Your task to perform on an android device: check android version Image 0: 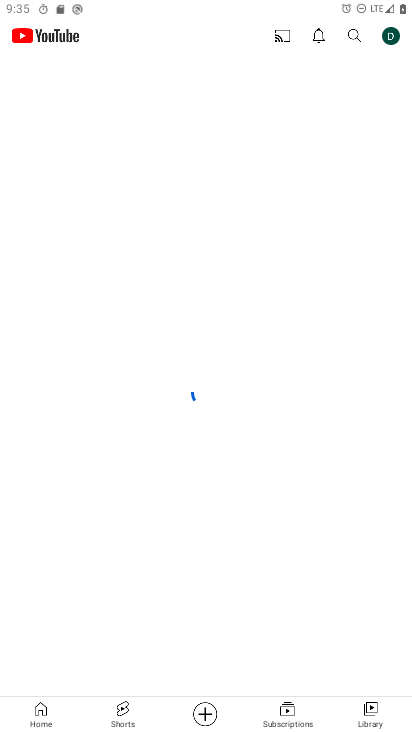
Step 0: click (284, 4)
Your task to perform on an android device: check android version Image 1: 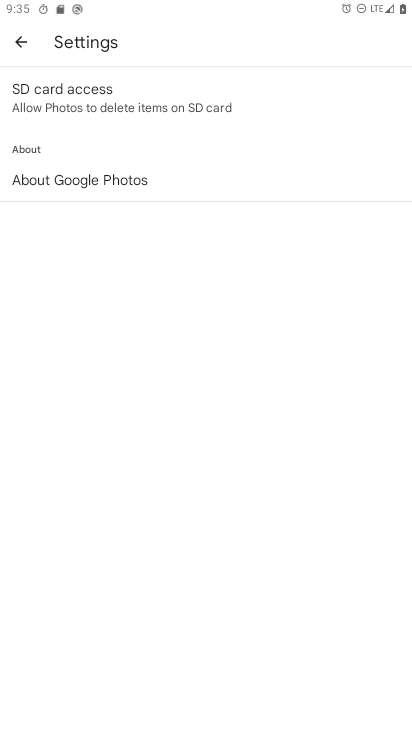
Step 1: press home button
Your task to perform on an android device: check android version Image 2: 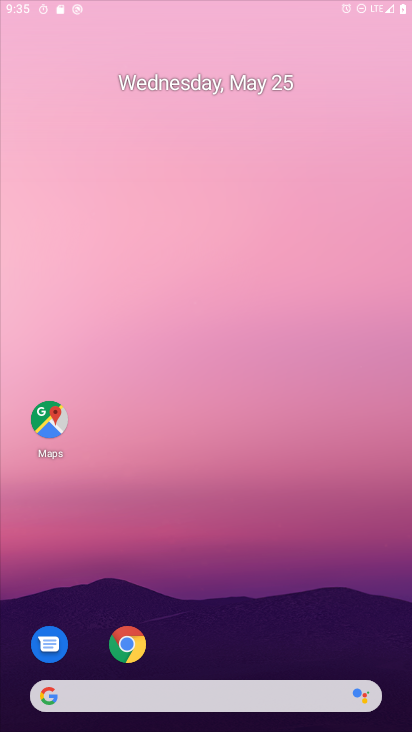
Step 2: drag from (321, 627) to (281, 99)
Your task to perform on an android device: check android version Image 3: 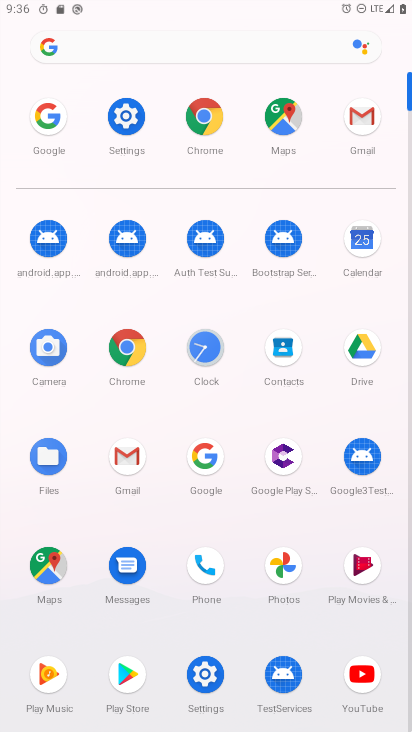
Step 3: click (208, 666)
Your task to perform on an android device: check android version Image 4: 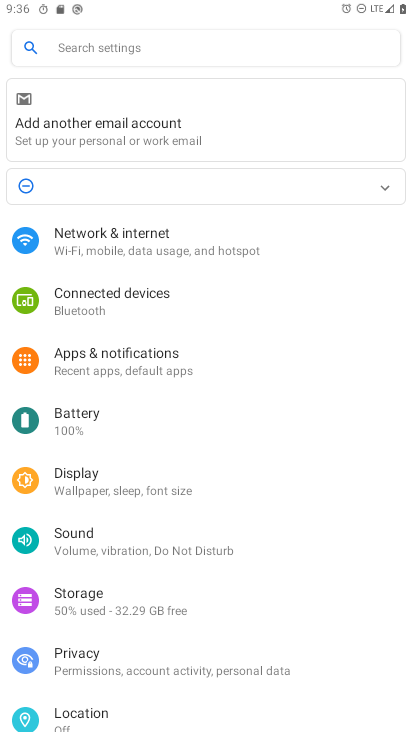
Step 4: drag from (143, 653) to (188, 71)
Your task to perform on an android device: check android version Image 5: 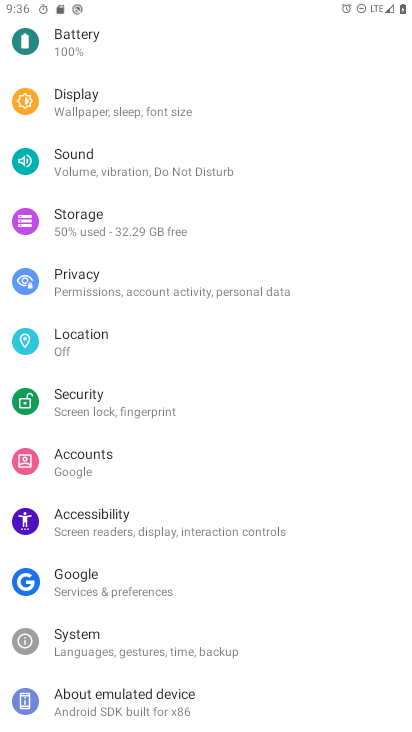
Step 5: click (144, 695)
Your task to perform on an android device: check android version Image 6: 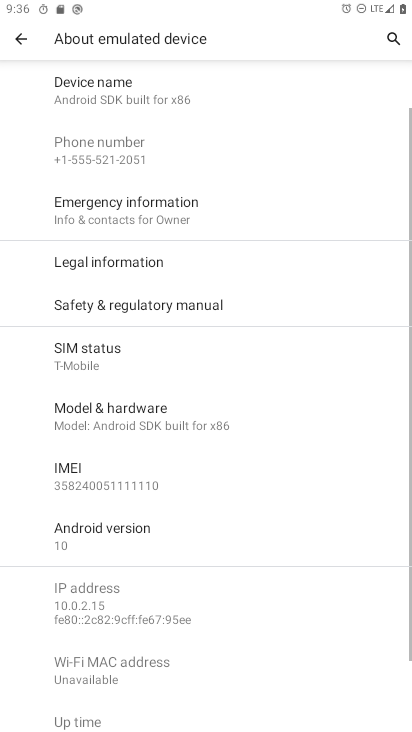
Step 6: click (159, 543)
Your task to perform on an android device: check android version Image 7: 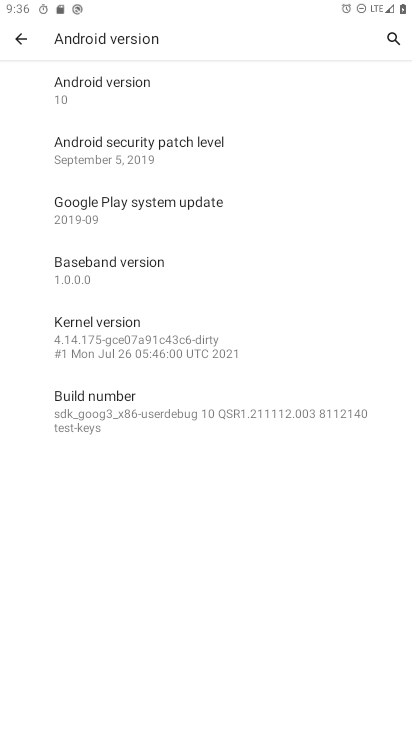
Step 7: task complete